Your task to perform on an android device: Set the phone to "Do not disturb". Image 0: 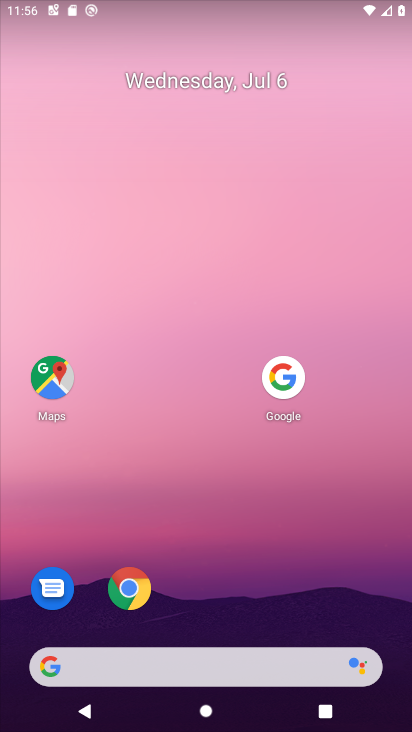
Step 0: drag from (251, 666) to (377, 53)
Your task to perform on an android device: Set the phone to "Do not disturb". Image 1: 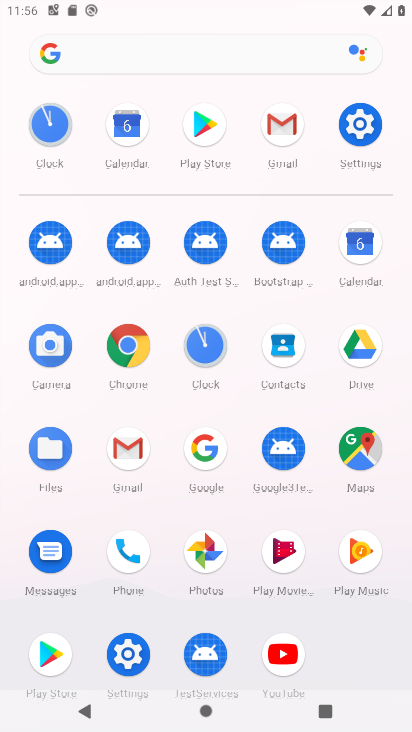
Step 1: click (367, 124)
Your task to perform on an android device: Set the phone to "Do not disturb". Image 2: 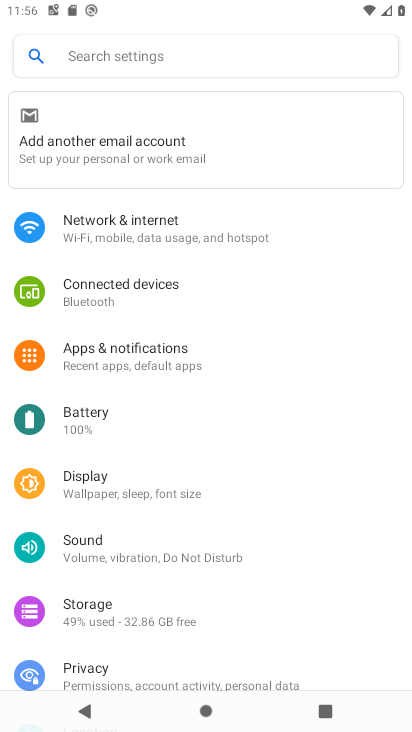
Step 2: click (143, 553)
Your task to perform on an android device: Set the phone to "Do not disturb". Image 3: 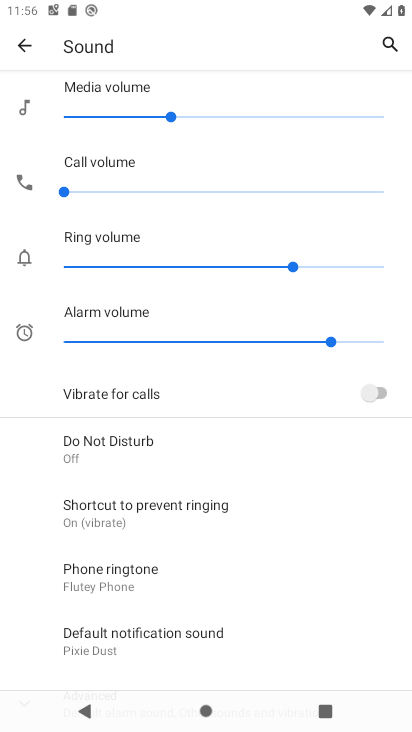
Step 3: click (104, 447)
Your task to perform on an android device: Set the phone to "Do not disturb". Image 4: 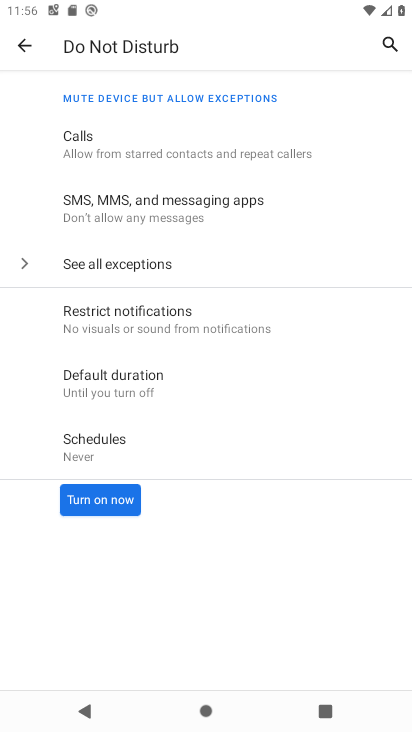
Step 4: click (102, 498)
Your task to perform on an android device: Set the phone to "Do not disturb". Image 5: 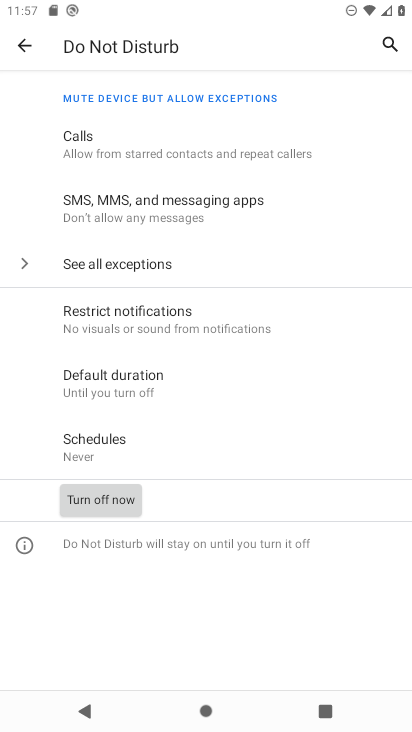
Step 5: task complete